Your task to perform on an android device: set default search engine in the chrome app Image 0: 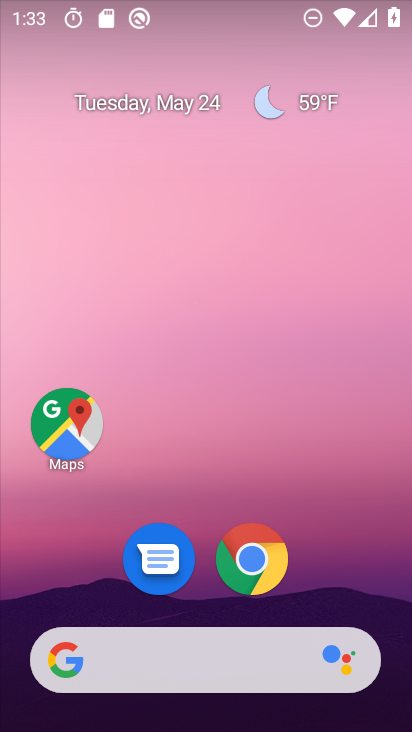
Step 0: click (246, 556)
Your task to perform on an android device: set default search engine in the chrome app Image 1: 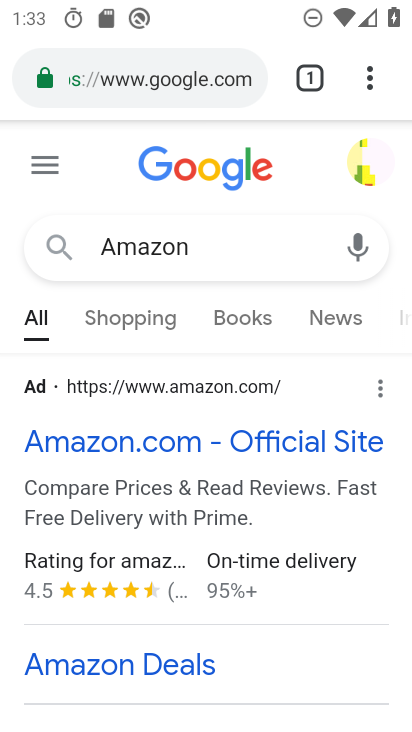
Step 1: click (372, 72)
Your task to perform on an android device: set default search engine in the chrome app Image 2: 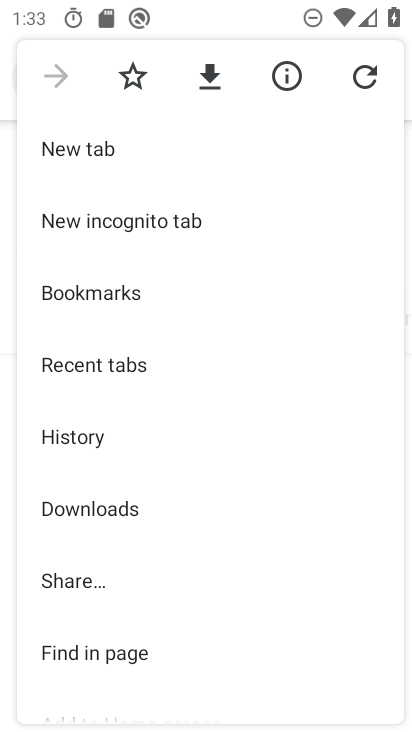
Step 2: drag from (235, 663) to (231, 391)
Your task to perform on an android device: set default search engine in the chrome app Image 3: 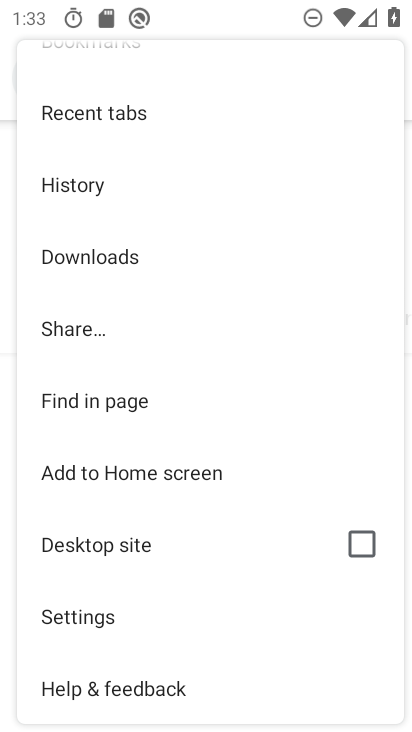
Step 3: click (59, 619)
Your task to perform on an android device: set default search engine in the chrome app Image 4: 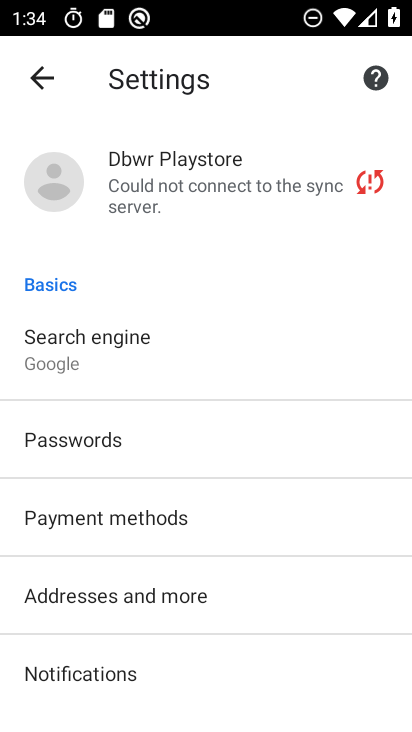
Step 4: click (59, 333)
Your task to perform on an android device: set default search engine in the chrome app Image 5: 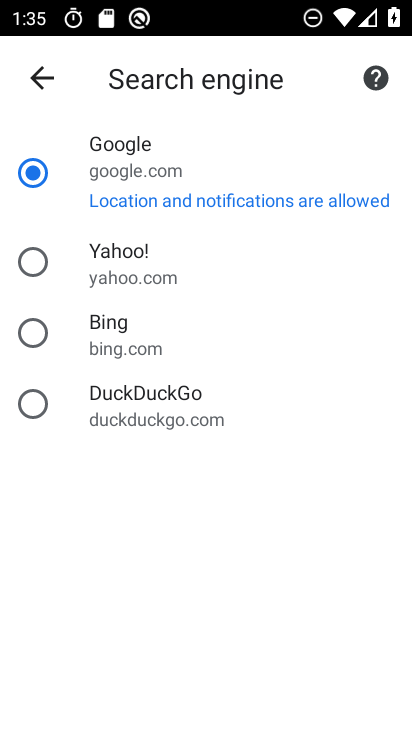
Step 5: task complete